Your task to perform on an android device: Open settings on Google Maps Image 0: 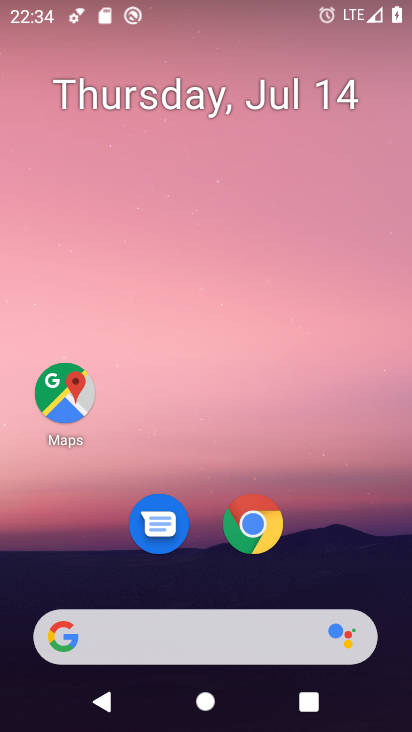
Step 0: click (67, 385)
Your task to perform on an android device: Open settings on Google Maps Image 1: 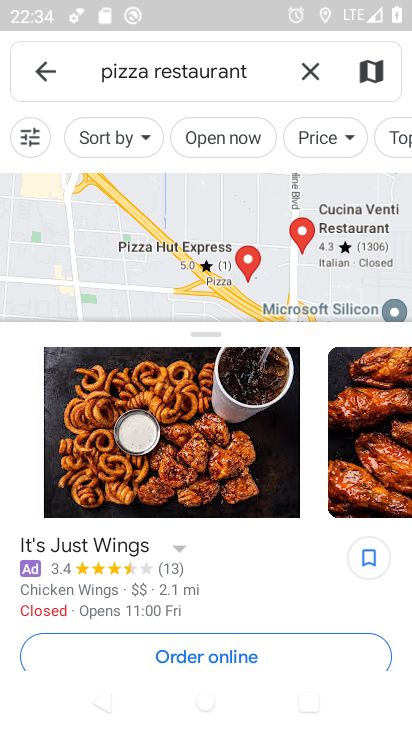
Step 1: click (48, 67)
Your task to perform on an android device: Open settings on Google Maps Image 2: 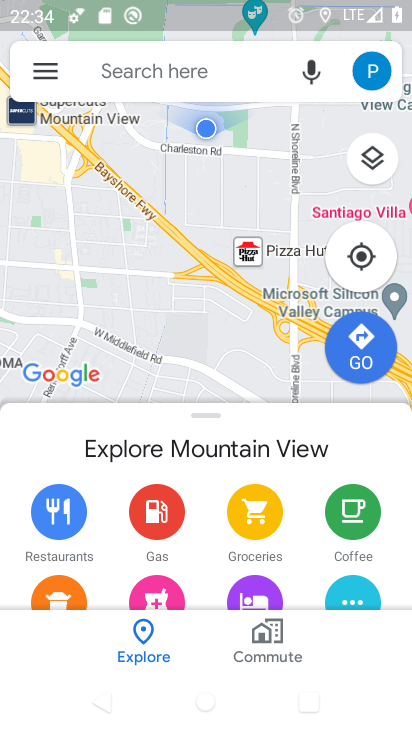
Step 2: click (48, 69)
Your task to perform on an android device: Open settings on Google Maps Image 3: 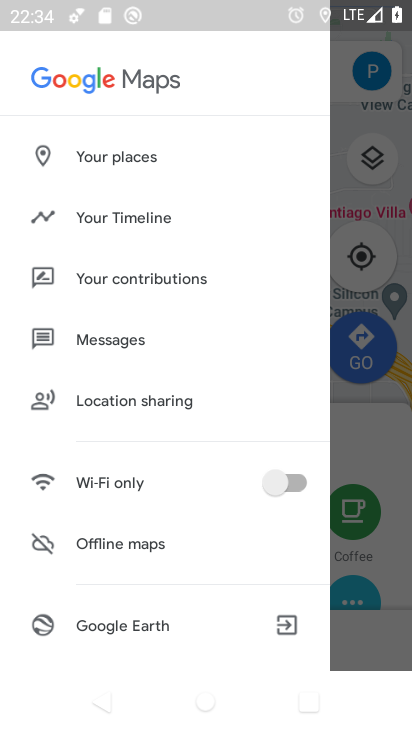
Step 3: drag from (137, 565) to (199, 158)
Your task to perform on an android device: Open settings on Google Maps Image 4: 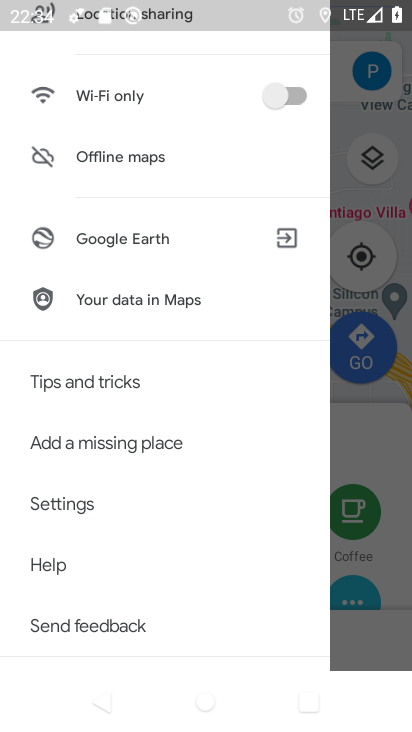
Step 4: click (75, 509)
Your task to perform on an android device: Open settings on Google Maps Image 5: 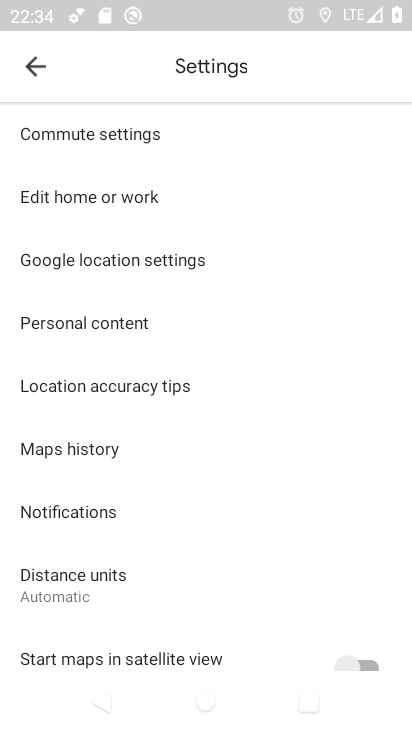
Step 5: task complete